Your task to perform on an android device: see creations saved in the google photos Image 0: 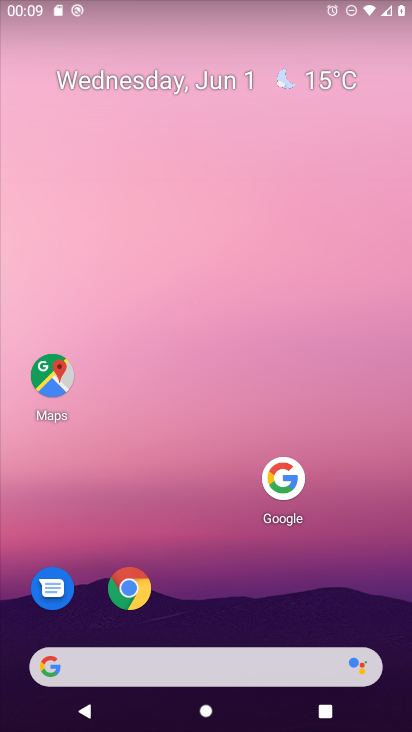
Step 0: press home button
Your task to perform on an android device: see creations saved in the google photos Image 1: 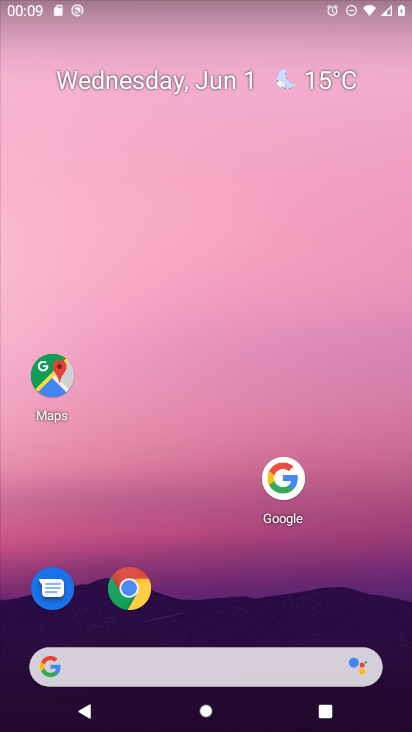
Step 1: drag from (191, 663) to (322, 247)
Your task to perform on an android device: see creations saved in the google photos Image 2: 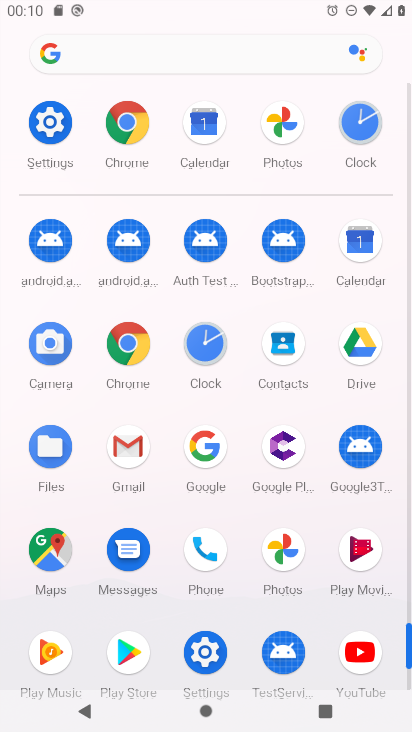
Step 2: click (281, 548)
Your task to perform on an android device: see creations saved in the google photos Image 3: 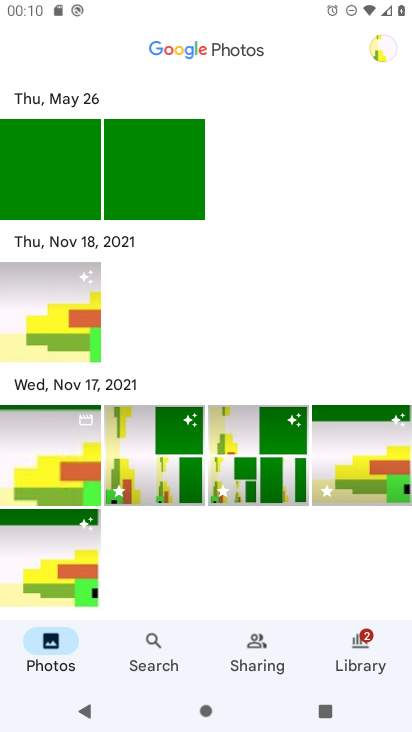
Step 3: click (158, 661)
Your task to perform on an android device: see creations saved in the google photos Image 4: 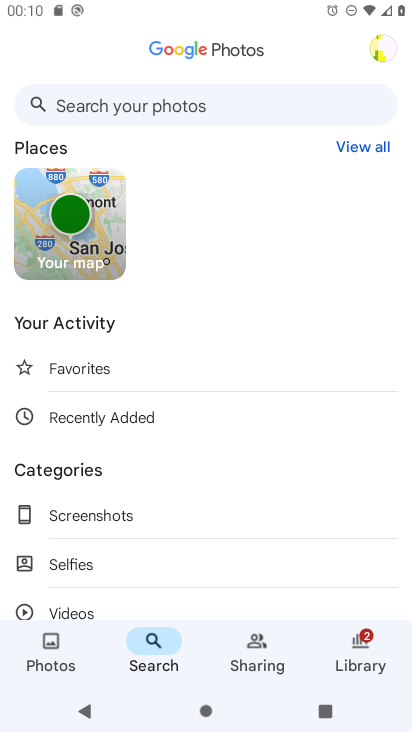
Step 4: drag from (205, 575) to (375, 147)
Your task to perform on an android device: see creations saved in the google photos Image 5: 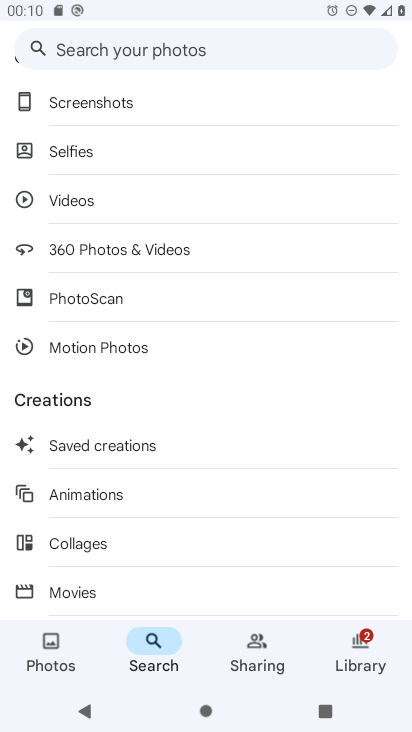
Step 5: click (122, 439)
Your task to perform on an android device: see creations saved in the google photos Image 6: 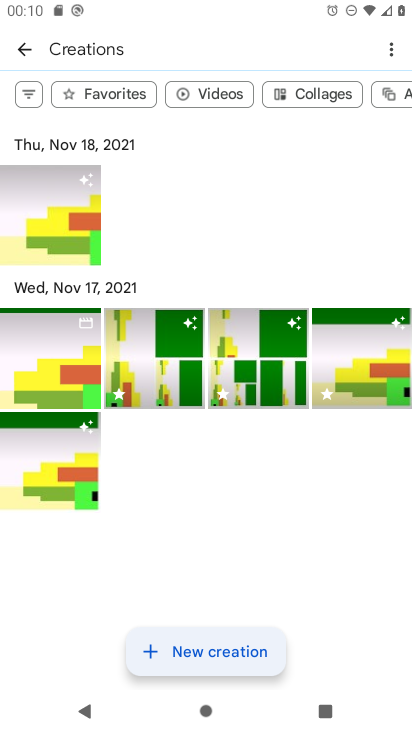
Step 6: task complete